Your task to perform on an android device: turn pop-ups off in chrome Image 0: 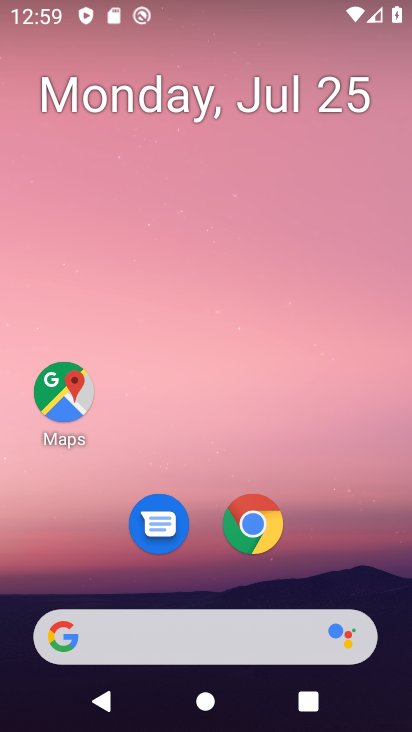
Step 0: click (378, 0)
Your task to perform on an android device: turn pop-ups off in chrome Image 1: 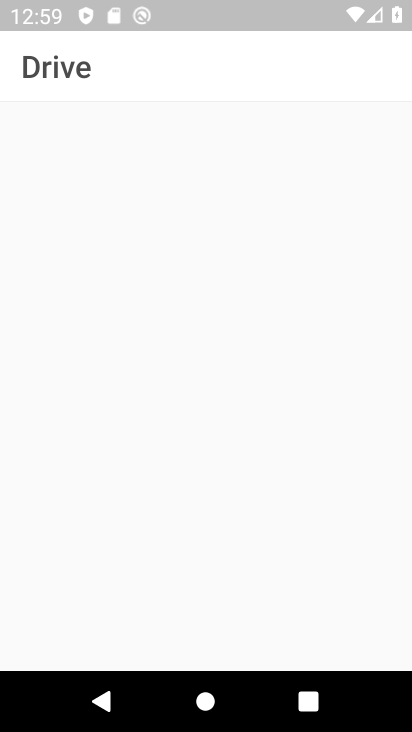
Step 1: press home button
Your task to perform on an android device: turn pop-ups off in chrome Image 2: 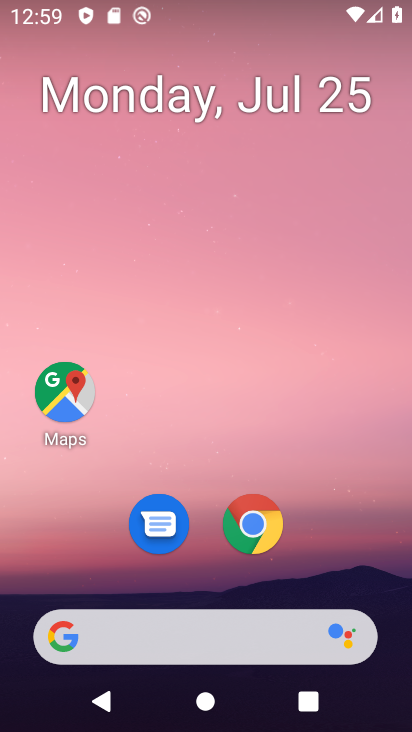
Step 2: click (249, 520)
Your task to perform on an android device: turn pop-ups off in chrome Image 3: 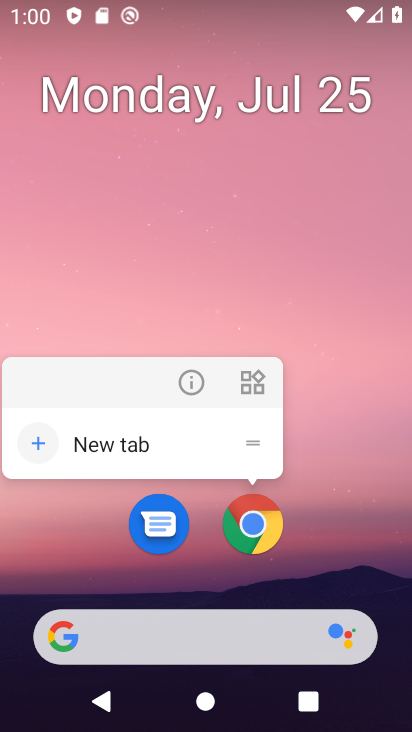
Step 3: click (262, 529)
Your task to perform on an android device: turn pop-ups off in chrome Image 4: 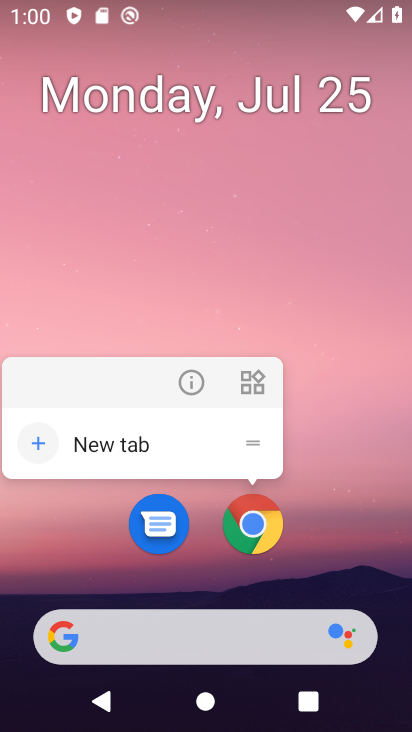
Step 4: click (254, 531)
Your task to perform on an android device: turn pop-ups off in chrome Image 5: 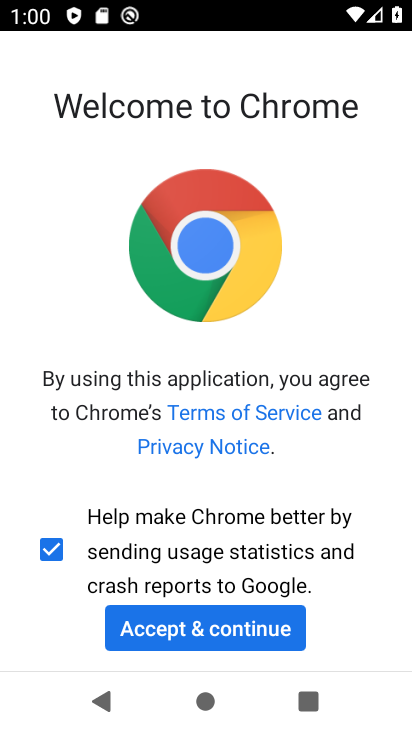
Step 5: click (189, 624)
Your task to perform on an android device: turn pop-ups off in chrome Image 6: 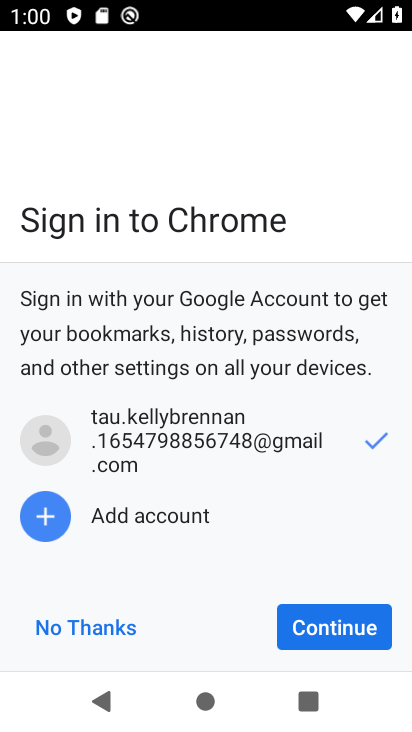
Step 6: click (307, 629)
Your task to perform on an android device: turn pop-ups off in chrome Image 7: 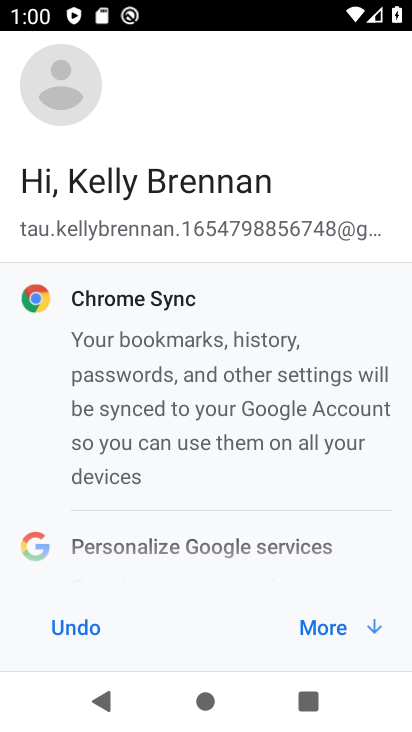
Step 7: click (318, 620)
Your task to perform on an android device: turn pop-ups off in chrome Image 8: 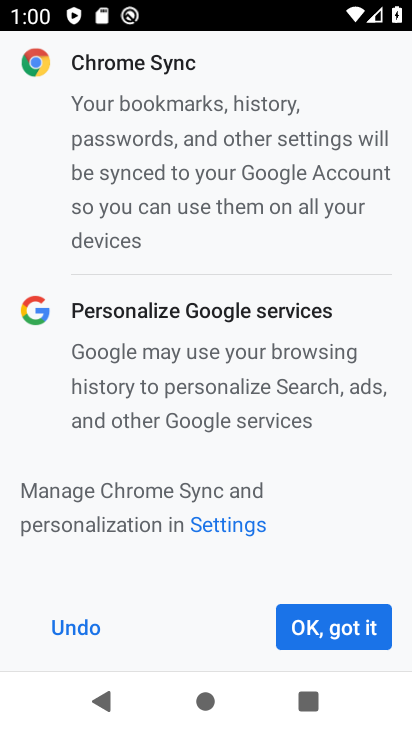
Step 8: click (318, 619)
Your task to perform on an android device: turn pop-ups off in chrome Image 9: 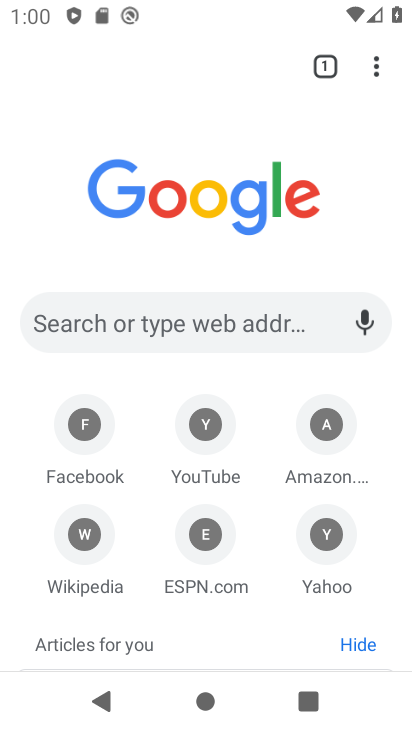
Step 9: drag from (375, 72) to (214, 562)
Your task to perform on an android device: turn pop-ups off in chrome Image 10: 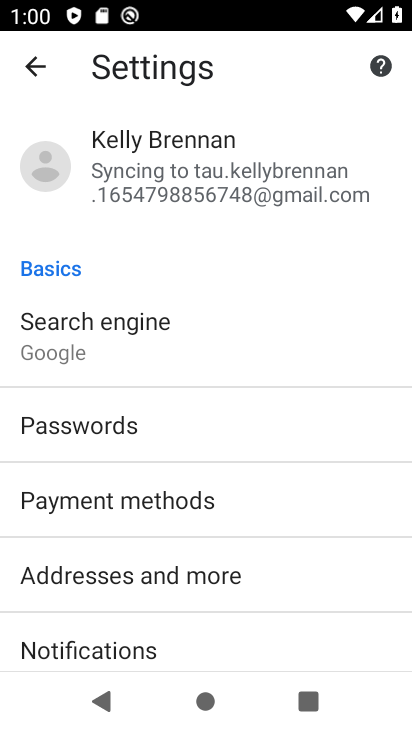
Step 10: drag from (208, 634) to (310, 171)
Your task to perform on an android device: turn pop-ups off in chrome Image 11: 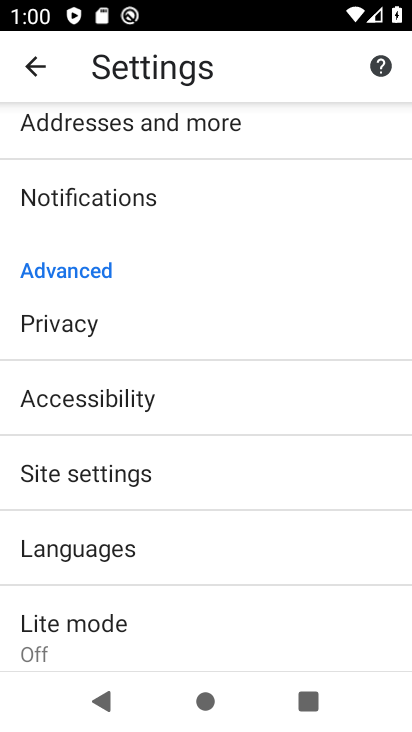
Step 11: click (116, 479)
Your task to perform on an android device: turn pop-ups off in chrome Image 12: 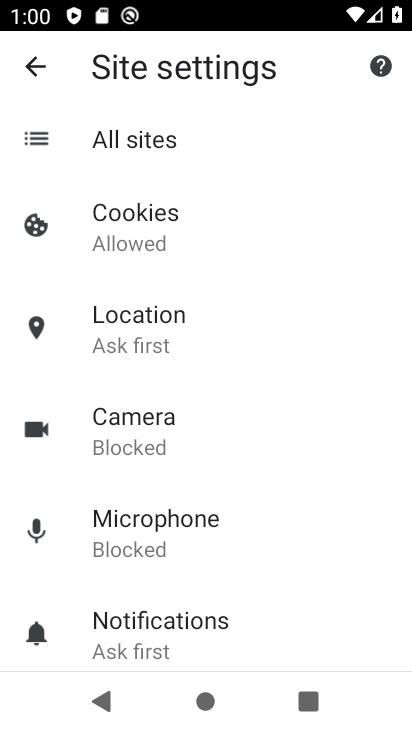
Step 12: drag from (257, 585) to (324, 297)
Your task to perform on an android device: turn pop-ups off in chrome Image 13: 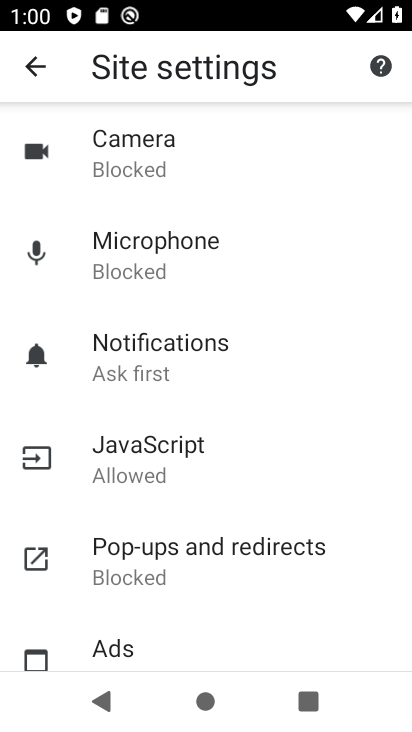
Step 13: click (178, 560)
Your task to perform on an android device: turn pop-ups off in chrome Image 14: 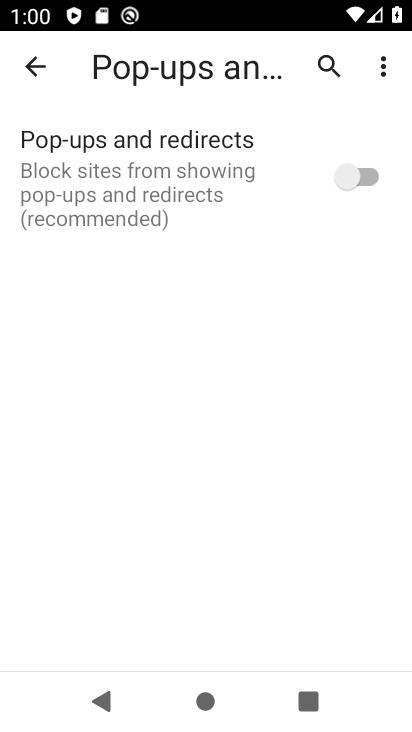
Step 14: task complete